Your task to perform on an android device: star an email in the gmail app Image 0: 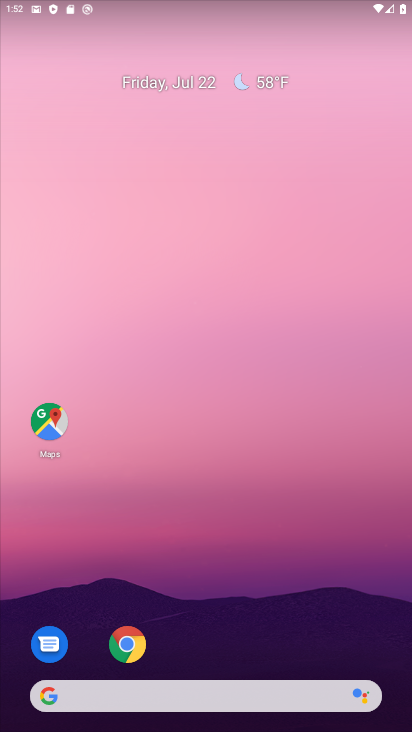
Step 0: drag from (216, 652) to (221, 225)
Your task to perform on an android device: star an email in the gmail app Image 1: 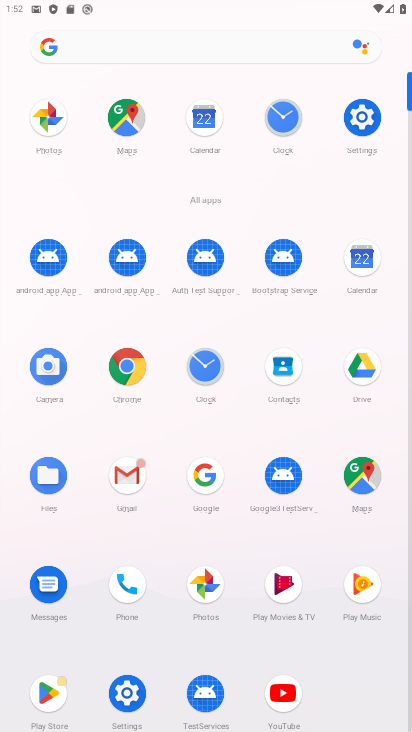
Step 1: click (137, 493)
Your task to perform on an android device: star an email in the gmail app Image 2: 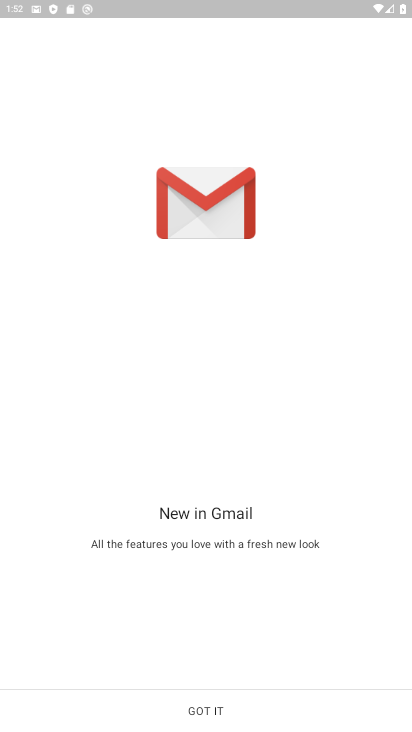
Step 2: click (214, 723)
Your task to perform on an android device: star an email in the gmail app Image 3: 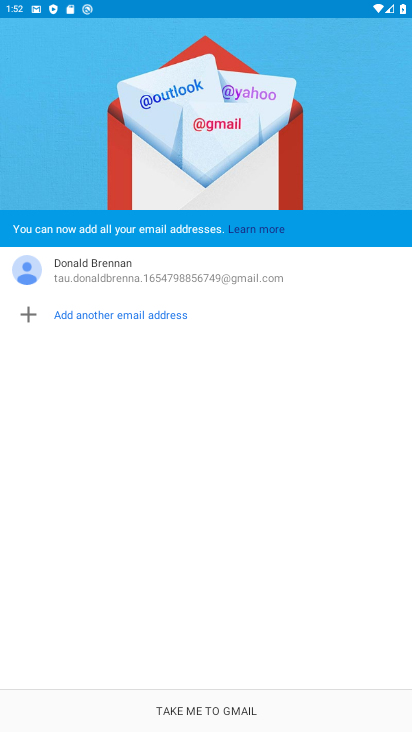
Step 3: click (223, 726)
Your task to perform on an android device: star an email in the gmail app Image 4: 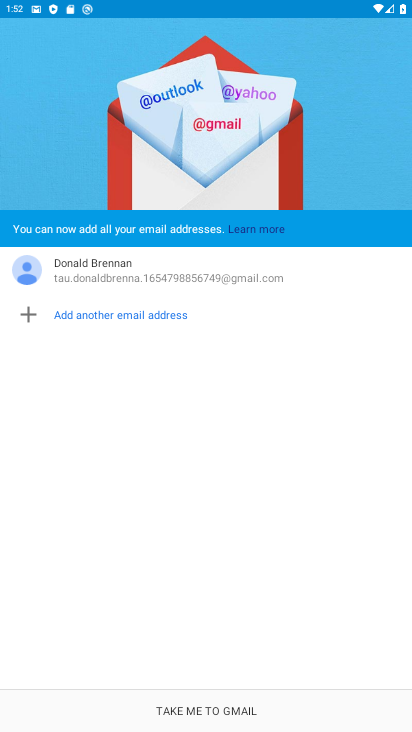
Step 4: click (230, 717)
Your task to perform on an android device: star an email in the gmail app Image 5: 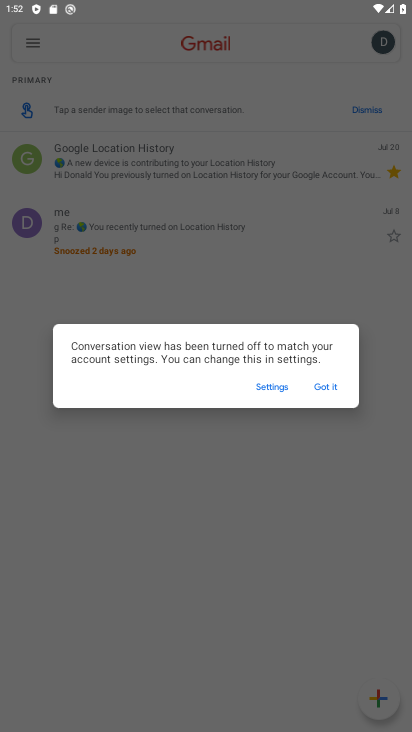
Step 5: click (332, 381)
Your task to perform on an android device: star an email in the gmail app Image 6: 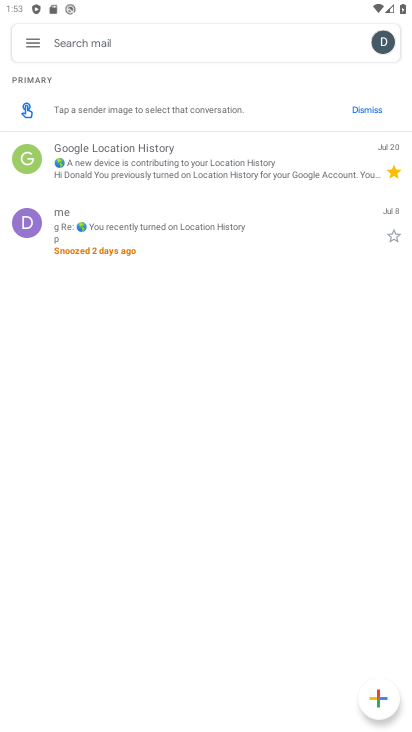
Step 6: click (394, 229)
Your task to perform on an android device: star an email in the gmail app Image 7: 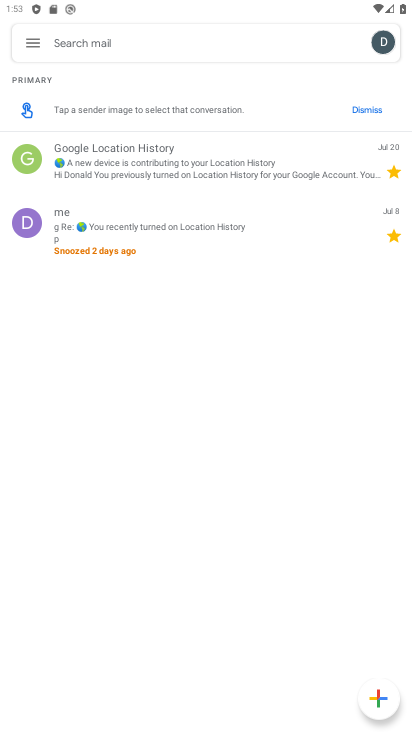
Step 7: task complete